Your task to perform on an android device: turn off picture-in-picture Image 0: 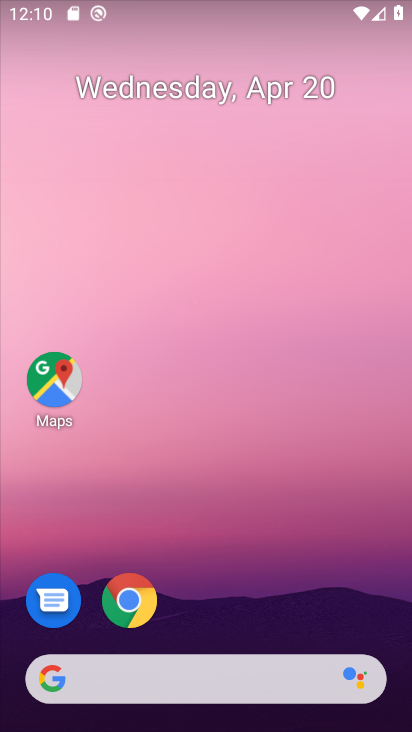
Step 0: drag from (350, 615) to (353, 90)
Your task to perform on an android device: turn off picture-in-picture Image 1: 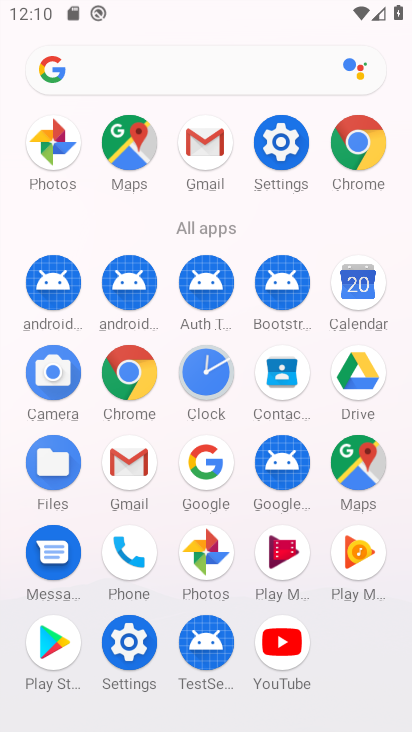
Step 1: click (283, 152)
Your task to perform on an android device: turn off picture-in-picture Image 2: 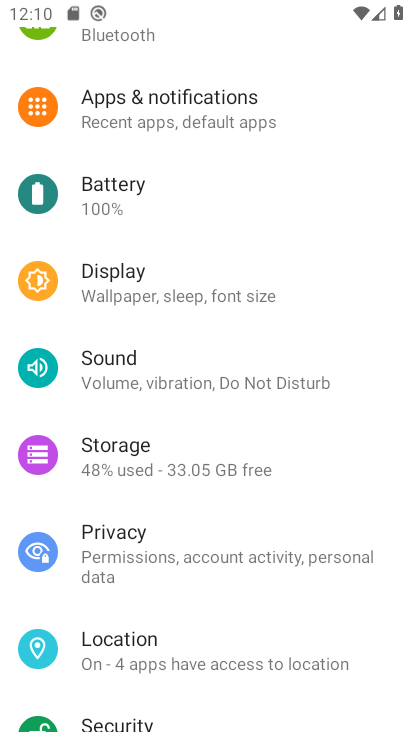
Step 2: click (243, 113)
Your task to perform on an android device: turn off picture-in-picture Image 3: 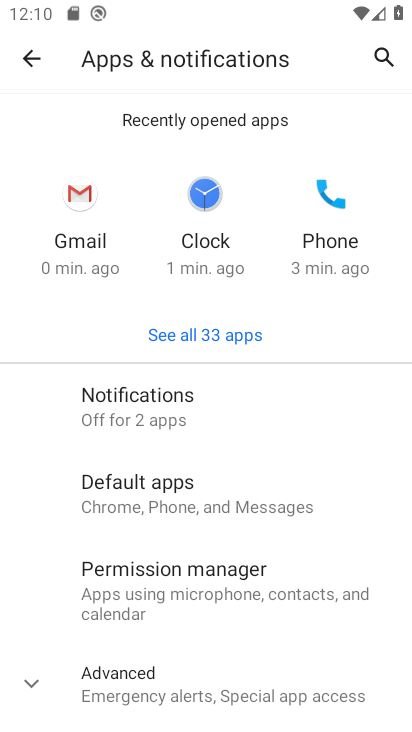
Step 3: drag from (234, 613) to (209, 227)
Your task to perform on an android device: turn off picture-in-picture Image 4: 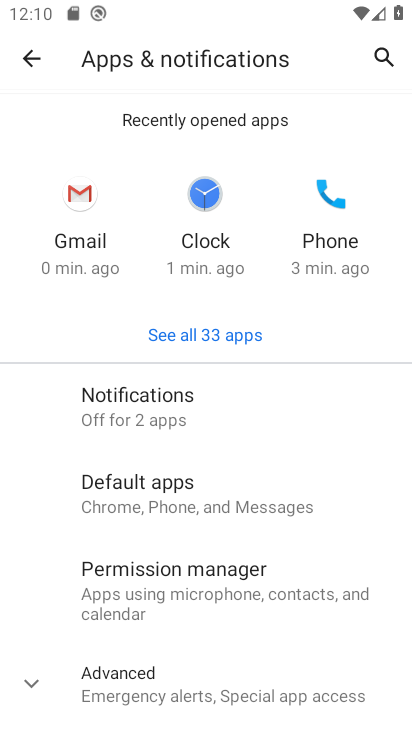
Step 4: click (208, 684)
Your task to perform on an android device: turn off picture-in-picture Image 5: 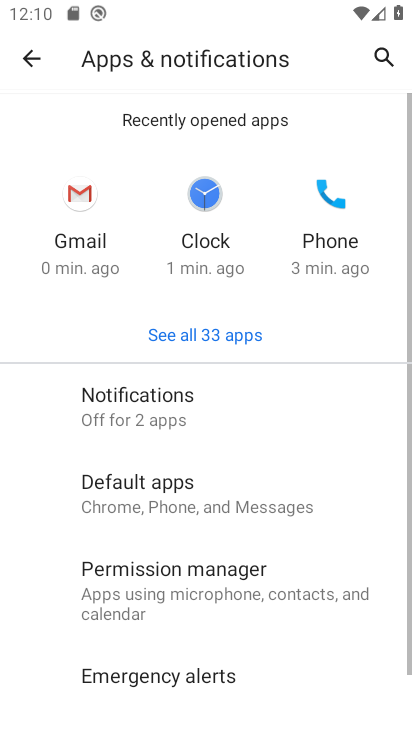
Step 5: drag from (292, 644) to (244, 254)
Your task to perform on an android device: turn off picture-in-picture Image 6: 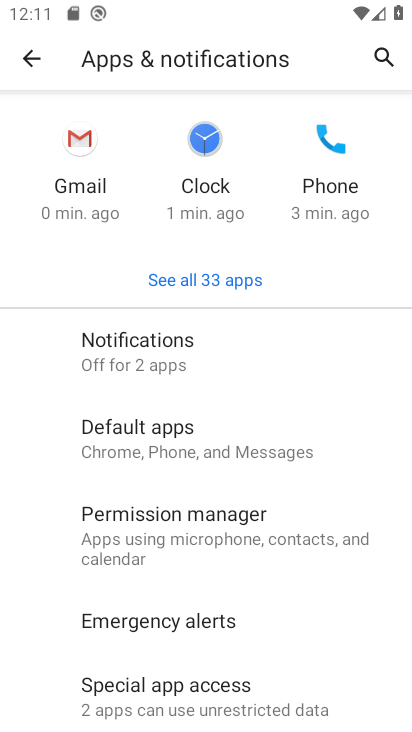
Step 6: click (261, 701)
Your task to perform on an android device: turn off picture-in-picture Image 7: 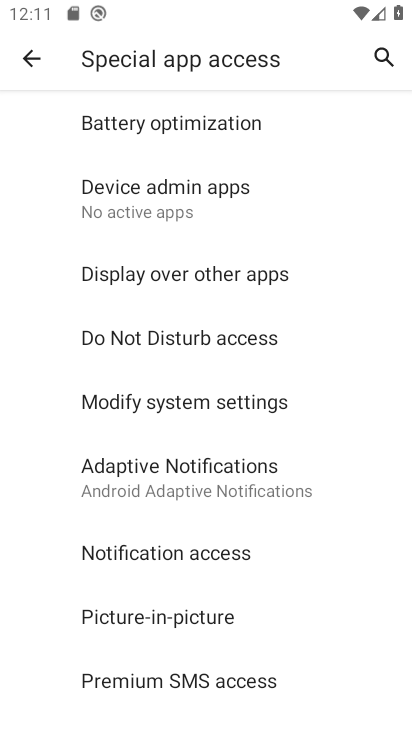
Step 7: drag from (319, 638) to (317, 319)
Your task to perform on an android device: turn off picture-in-picture Image 8: 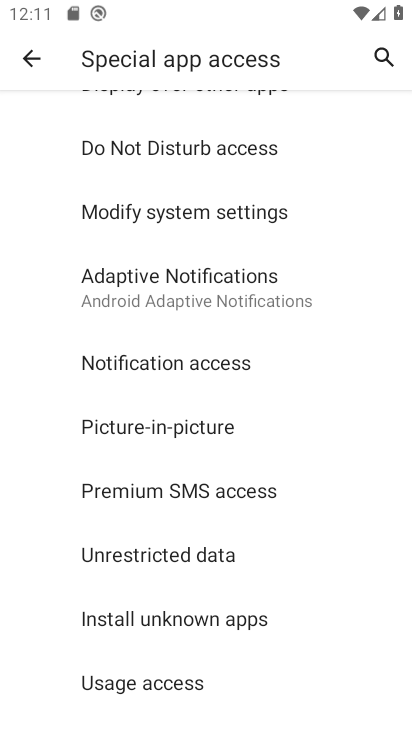
Step 8: drag from (294, 575) to (301, 301)
Your task to perform on an android device: turn off picture-in-picture Image 9: 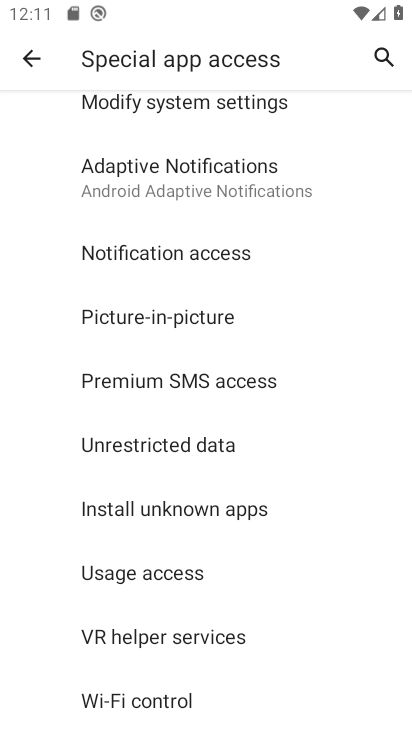
Step 9: drag from (302, 166) to (319, 558)
Your task to perform on an android device: turn off picture-in-picture Image 10: 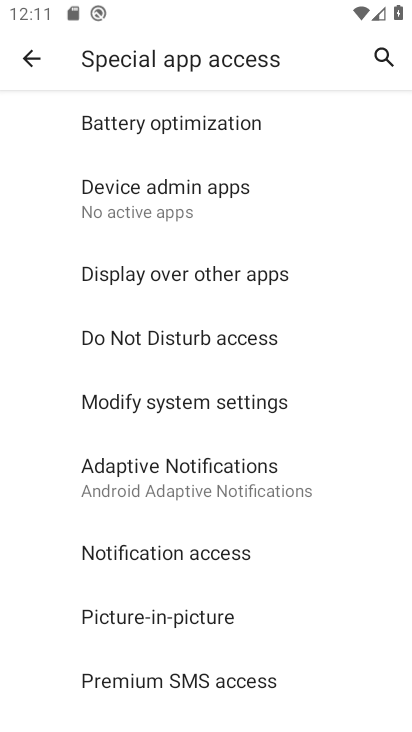
Step 10: click (233, 625)
Your task to perform on an android device: turn off picture-in-picture Image 11: 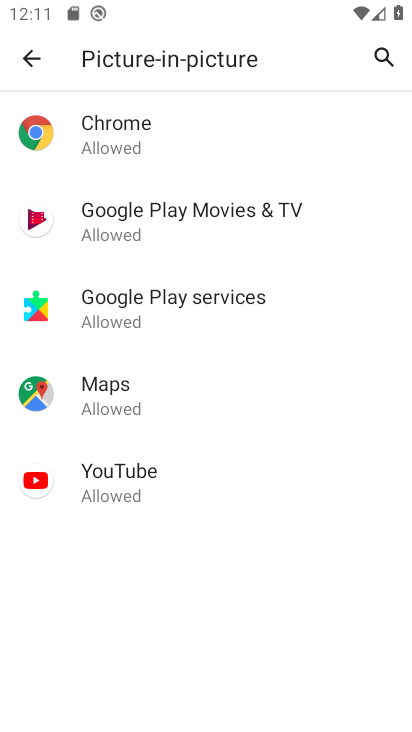
Step 11: click (227, 124)
Your task to perform on an android device: turn off picture-in-picture Image 12: 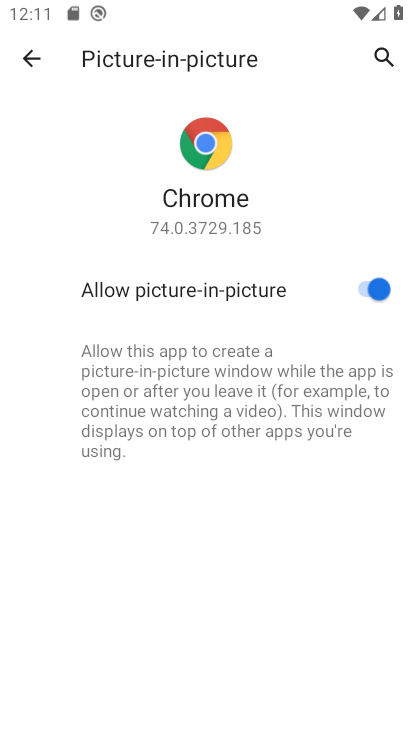
Step 12: click (361, 290)
Your task to perform on an android device: turn off picture-in-picture Image 13: 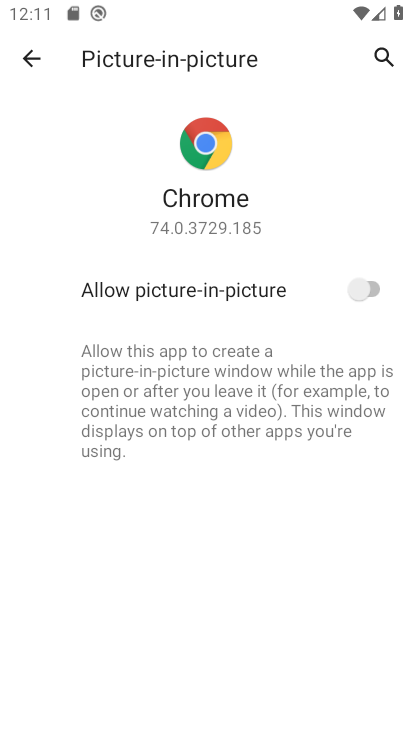
Step 13: task complete